Your task to perform on an android device: What's the weather? Image 0: 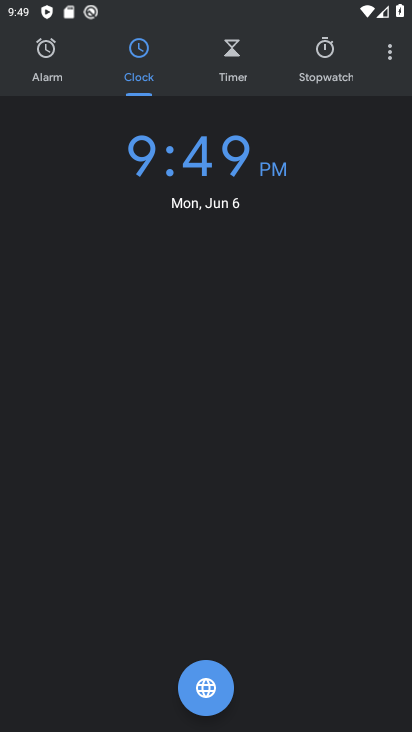
Step 0: press home button
Your task to perform on an android device: What's the weather? Image 1: 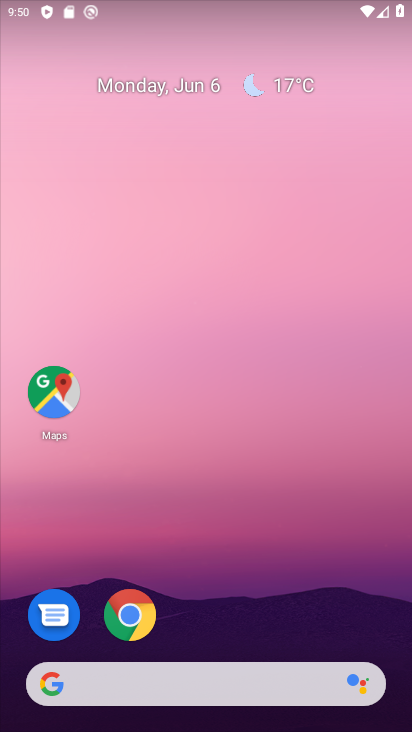
Step 1: click (285, 78)
Your task to perform on an android device: What's the weather? Image 2: 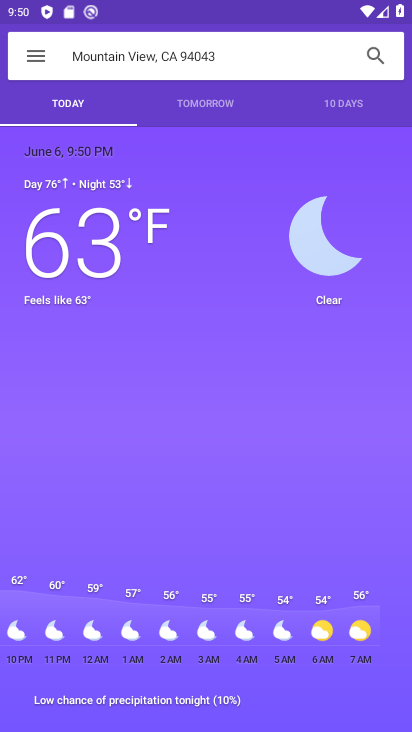
Step 2: task complete